Your task to perform on an android device: Turn off the flashlight Image 0: 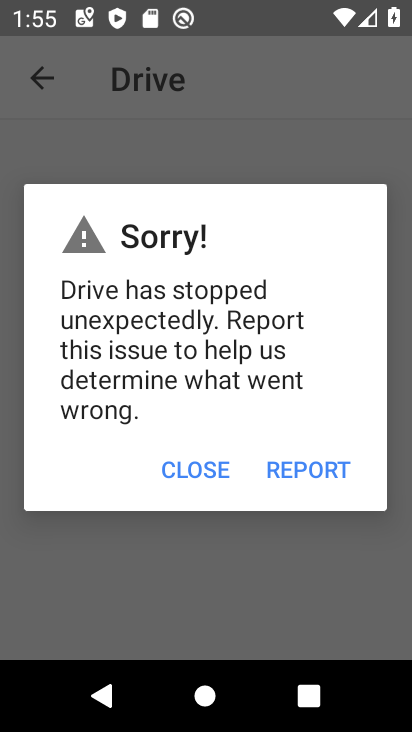
Step 0: press home button
Your task to perform on an android device: Turn off the flashlight Image 1: 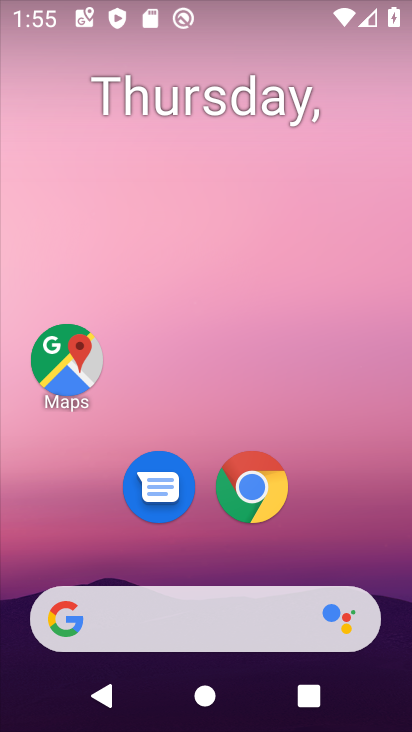
Step 1: drag from (334, 544) to (330, 86)
Your task to perform on an android device: Turn off the flashlight Image 2: 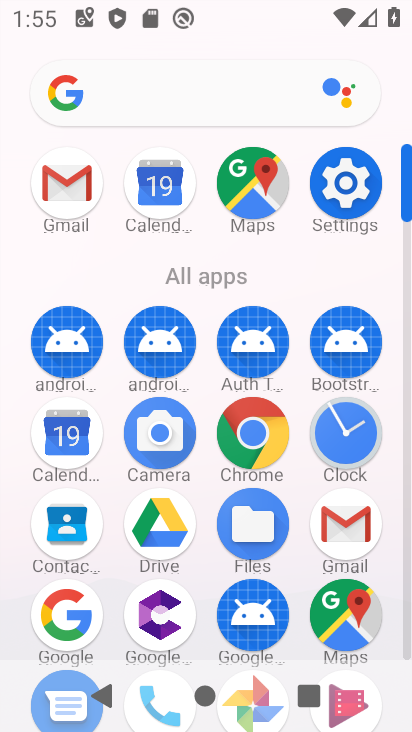
Step 2: click (339, 185)
Your task to perform on an android device: Turn off the flashlight Image 3: 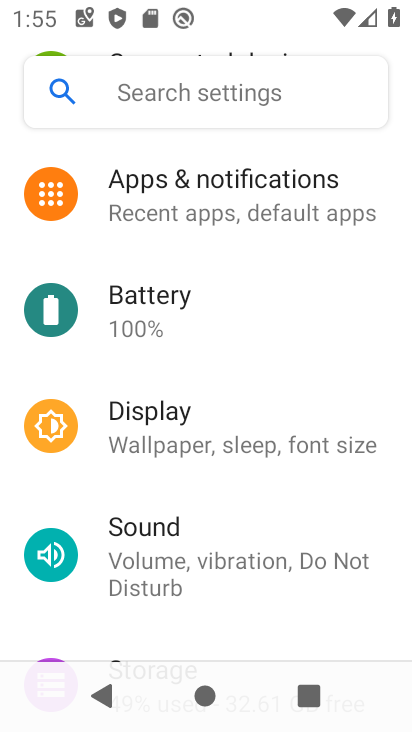
Step 3: task complete